Your task to perform on an android device: Open Google Maps and go to "Timeline" Image 0: 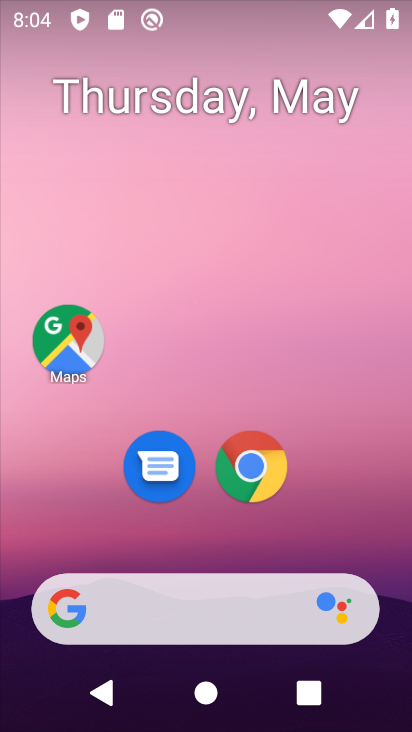
Step 0: drag from (243, 573) to (192, 69)
Your task to perform on an android device: Open Google Maps and go to "Timeline" Image 1: 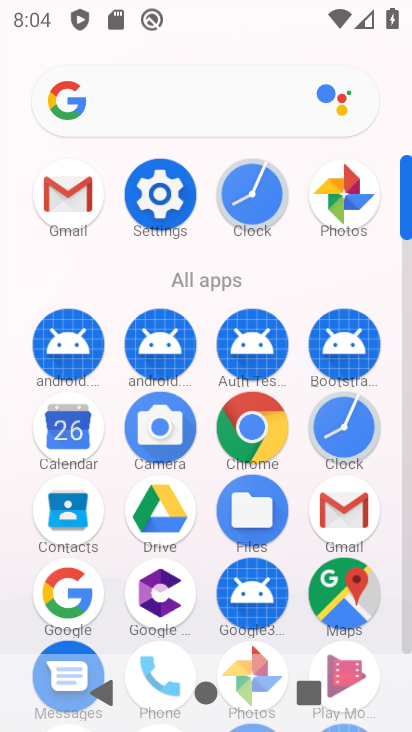
Step 1: click (340, 584)
Your task to perform on an android device: Open Google Maps and go to "Timeline" Image 2: 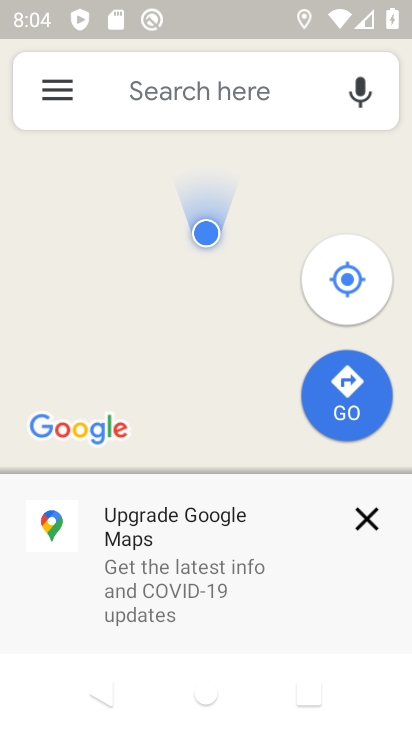
Step 2: click (22, 102)
Your task to perform on an android device: Open Google Maps and go to "Timeline" Image 3: 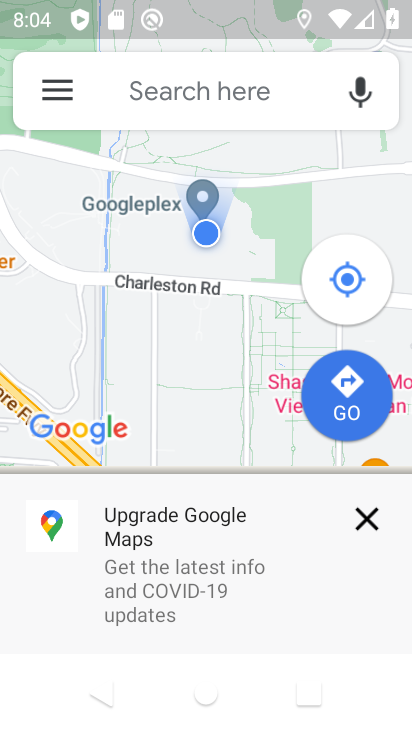
Step 3: click (37, 86)
Your task to perform on an android device: Open Google Maps and go to "Timeline" Image 4: 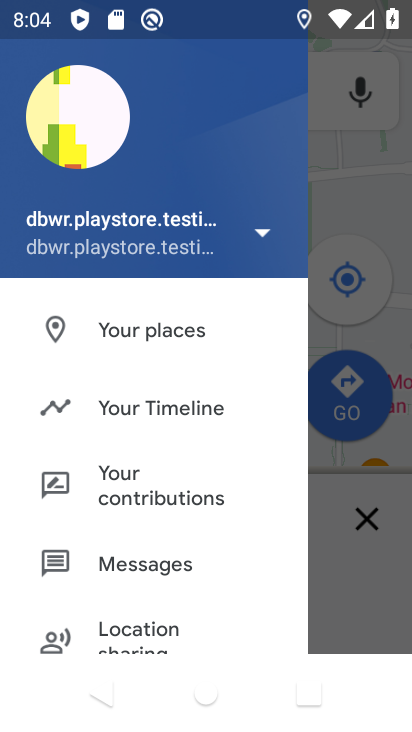
Step 4: click (137, 404)
Your task to perform on an android device: Open Google Maps and go to "Timeline" Image 5: 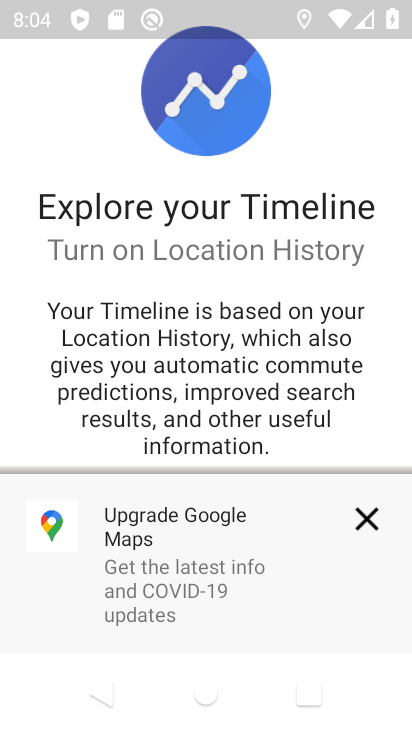
Step 5: click (371, 513)
Your task to perform on an android device: Open Google Maps and go to "Timeline" Image 6: 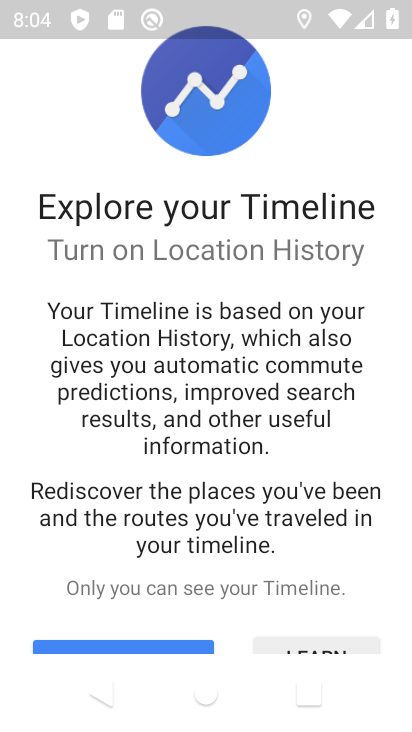
Step 6: drag from (300, 568) to (230, 154)
Your task to perform on an android device: Open Google Maps and go to "Timeline" Image 7: 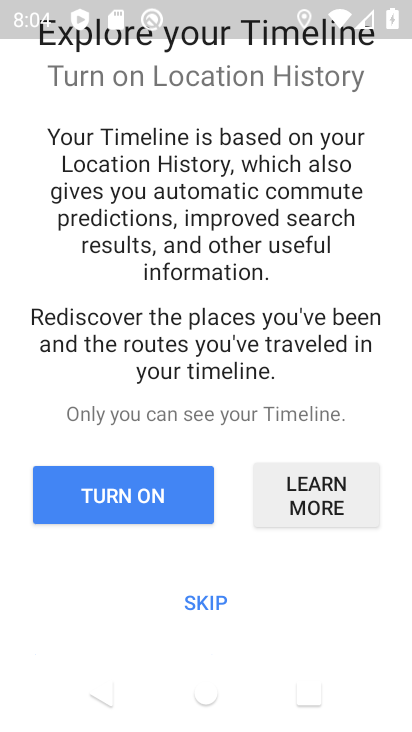
Step 7: click (181, 604)
Your task to perform on an android device: Open Google Maps and go to "Timeline" Image 8: 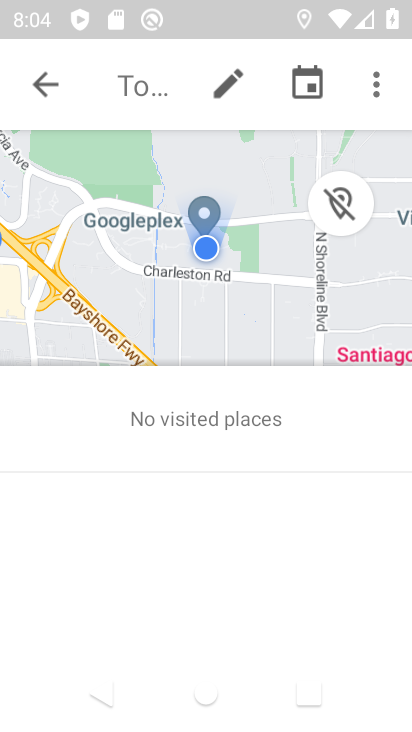
Step 8: task complete